Your task to perform on an android device: Do I have any events tomorrow? Image 0: 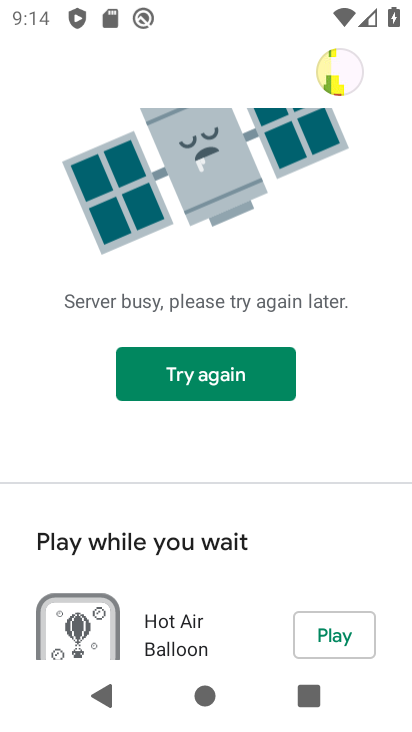
Step 0: press home button
Your task to perform on an android device: Do I have any events tomorrow? Image 1: 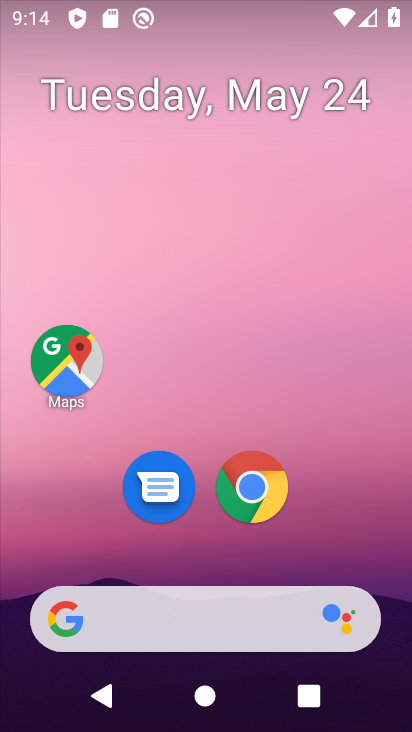
Step 1: drag from (371, 581) to (275, 52)
Your task to perform on an android device: Do I have any events tomorrow? Image 2: 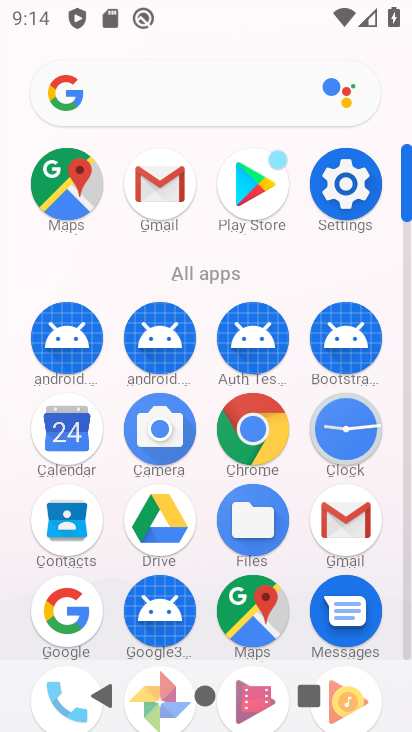
Step 2: click (60, 443)
Your task to perform on an android device: Do I have any events tomorrow? Image 3: 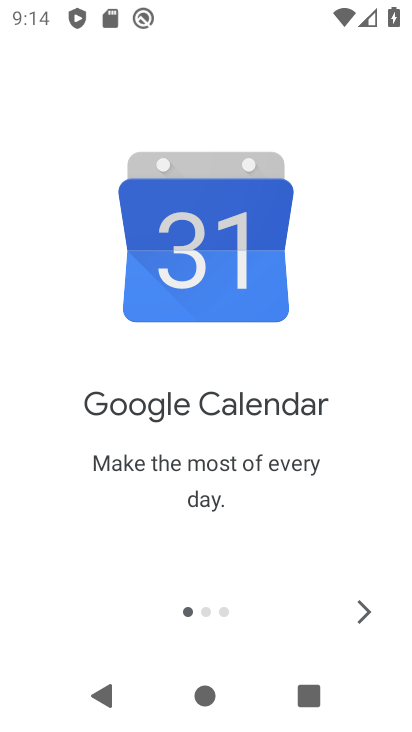
Step 3: click (363, 622)
Your task to perform on an android device: Do I have any events tomorrow? Image 4: 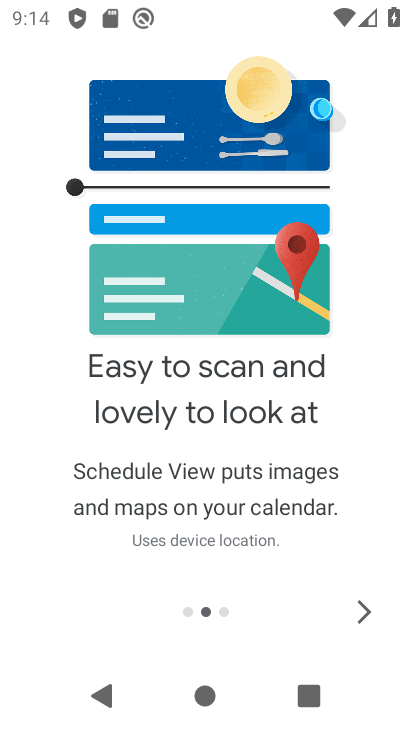
Step 4: click (363, 622)
Your task to perform on an android device: Do I have any events tomorrow? Image 5: 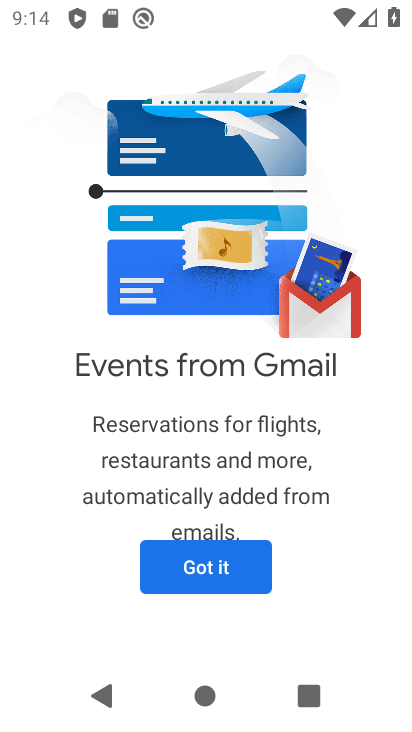
Step 5: click (198, 577)
Your task to perform on an android device: Do I have any events tomorrow? Image 6: 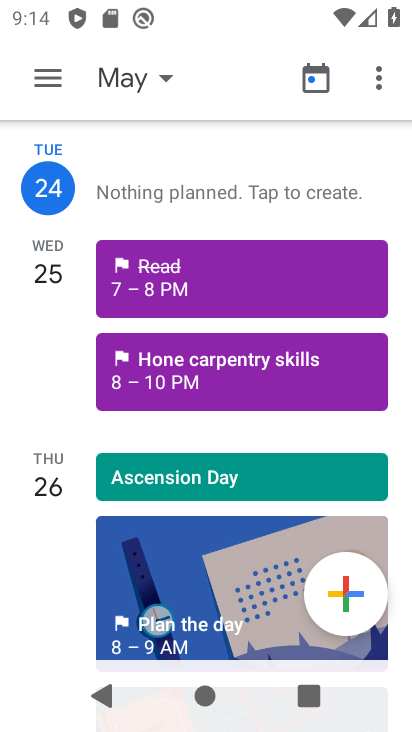
Step 6: click (191, 283)
Your task to perform on an android device: Do I have any events tomorrow? Image 7: 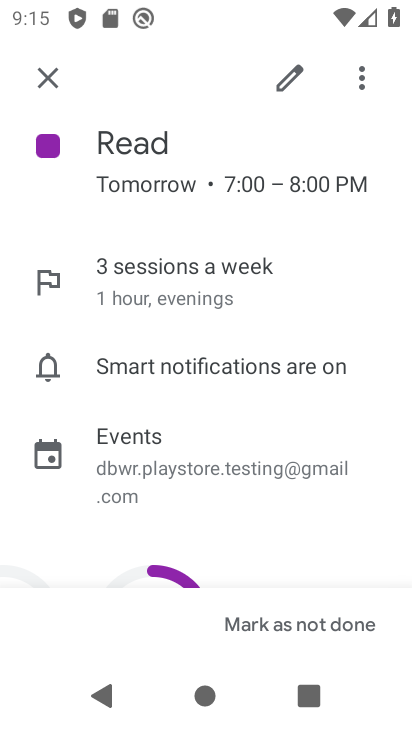
Step 7: task complete